Your task to perform on an android device: add a contact Image 0: 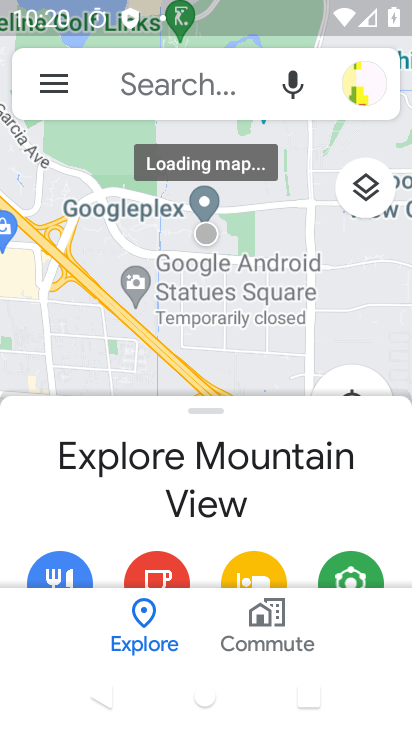
Step 0: press home button
Your task to perform on an android device: add a contact Image 1: 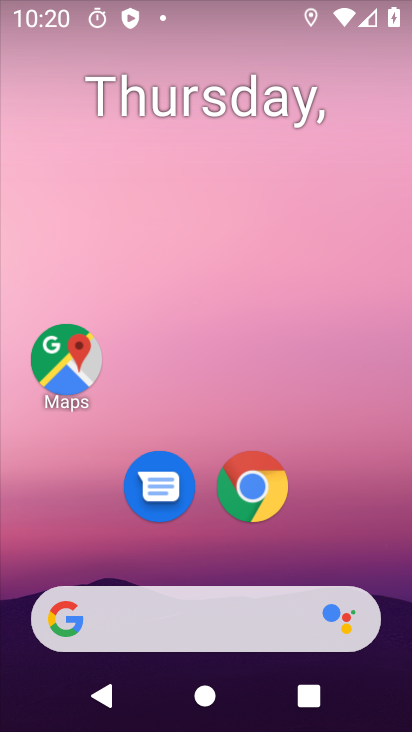
Step 1: drag from (385, 576) to (370, 325)
Your task to perform on an android device: add a contact Image 2: 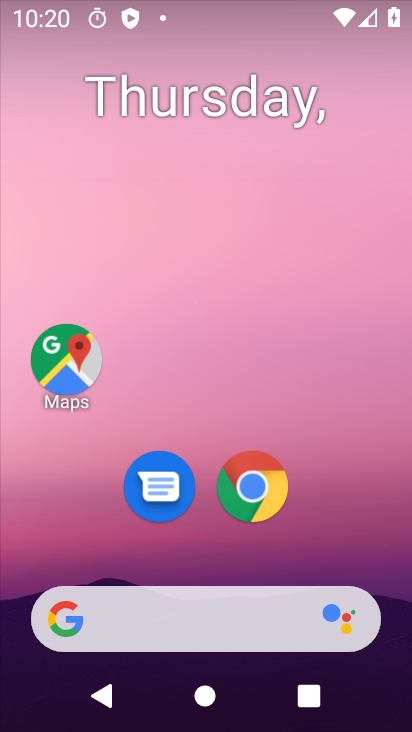
Step 2: drag from (389, 352) to (386, 263)
Your task to perform on an android device: add a contact Image 3: 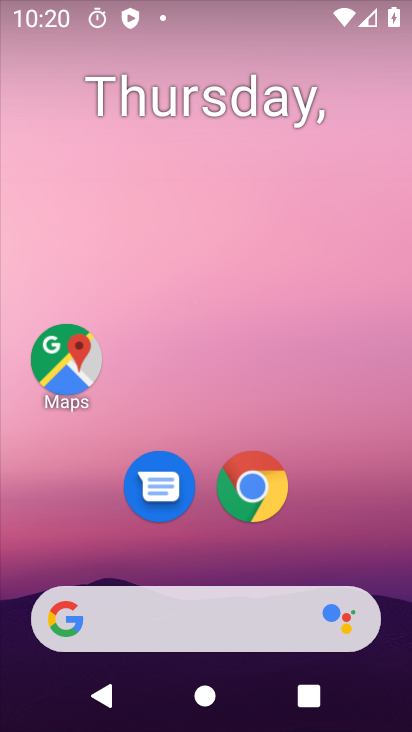
Step 3: drag from (400, 457) to (401, 221)
Your task to perform on an android device: add a contact Image 4: 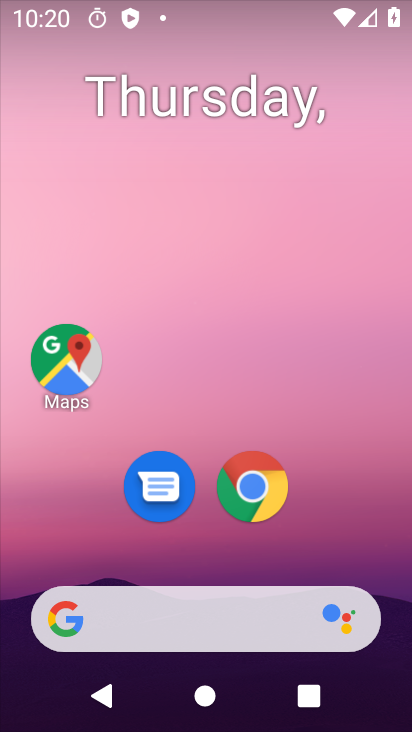
Step 4: drag from (383, 587) to (373, 309)
Your task to perform on an android device: add a contact Image 5: 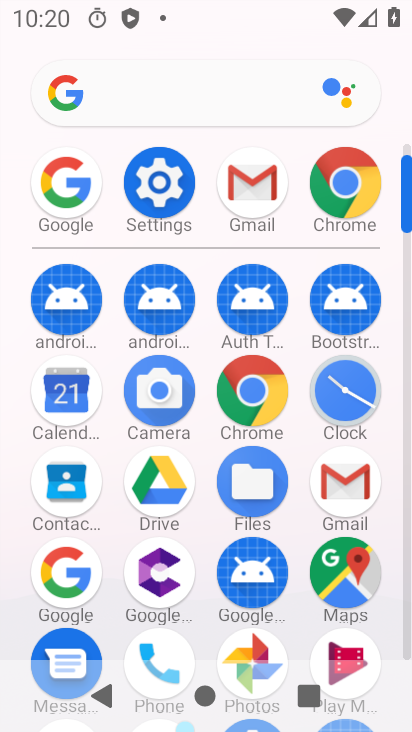
Step 5: click (67, 483)
Your task to perform on an android device: add a contact Image 6: 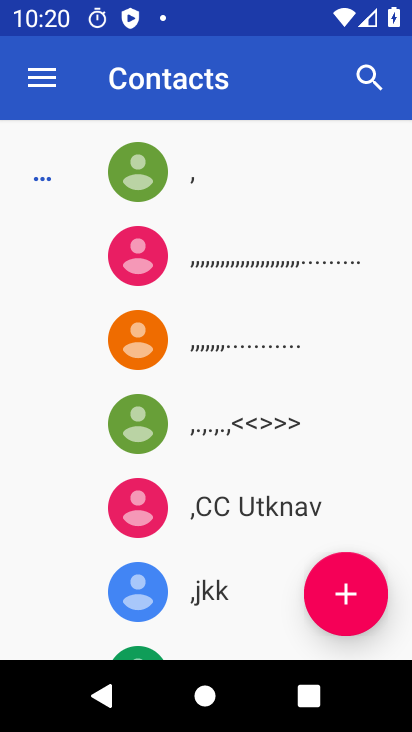
Step 6: click (357, 594)
Your task to perform on an android device: add a contact Image 7: 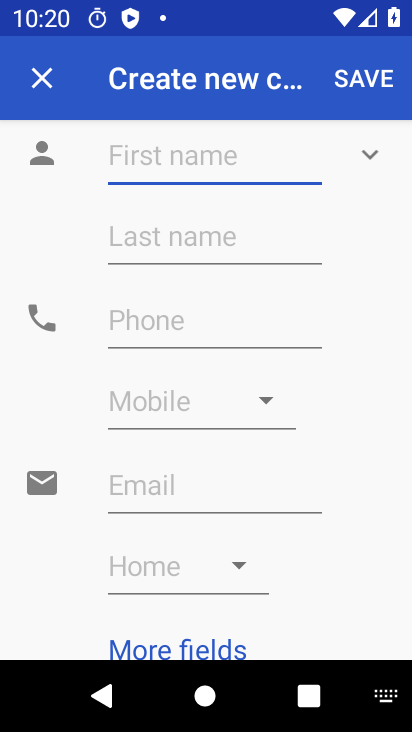
Step 7: type "jshhdfhjfdffj"
Your task to perform on an android device: add a contact Image 8: 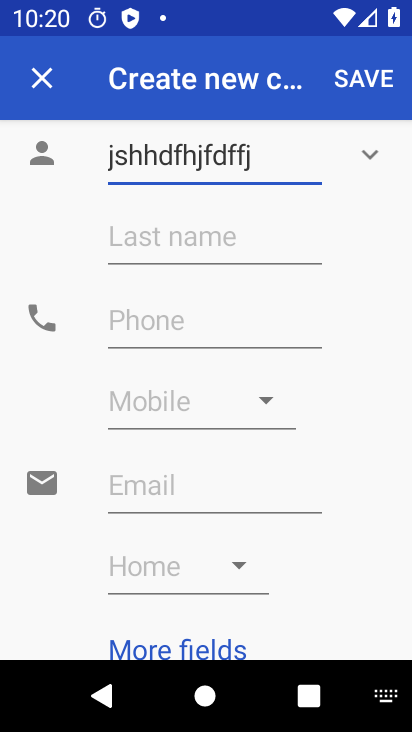
Step 8: click (134, 239)
Your task to perform on an android device: add a contact Image 9: 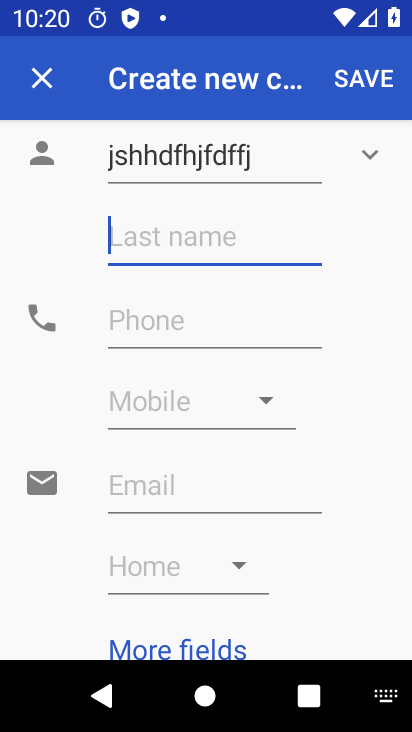
Step 9: type "fjxvgjggfjfjf"
Your task to perform on an android device: add a contact Image 10: 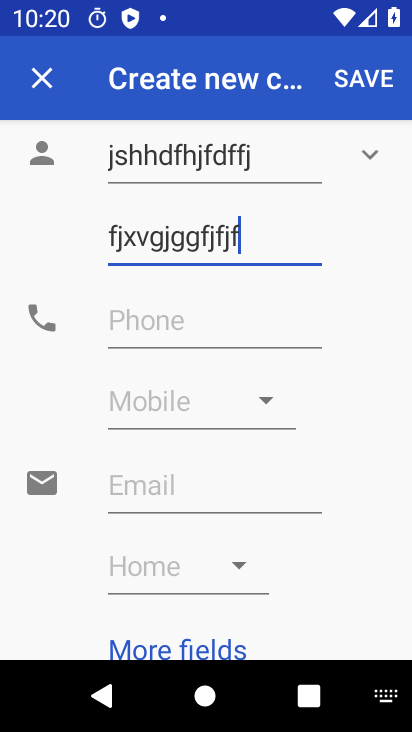
Step 10: click (205, 319)
Your task to perform on an android device: add a contact Image 11: 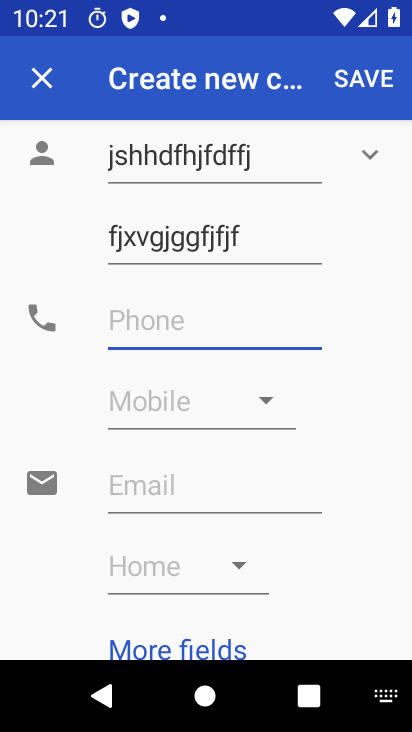
Step 11: type "3467576547654"
Your task to perform on an android device: add a contact Image 12: 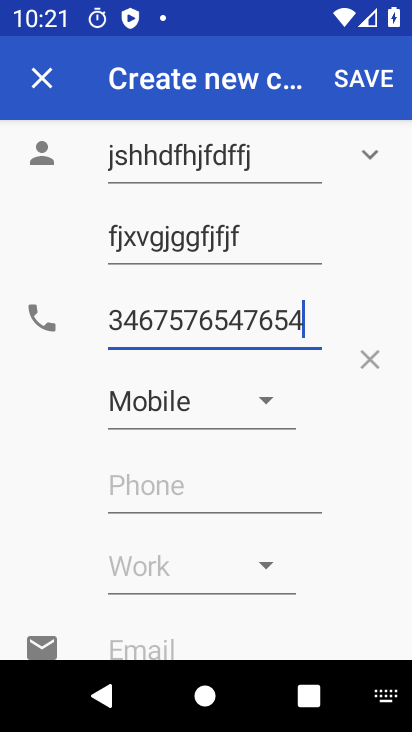
Step 12: task complete